Your task to perform on an android device: Show me popular videos on Youtube Image 0: 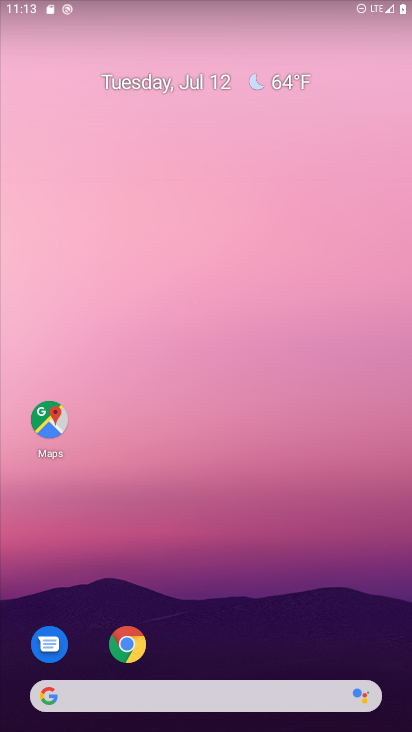
Step 0: drag from (221, 655) to (250, 76)
Your task to perform on an android device: Show me popular videos on Youtube Image 1: 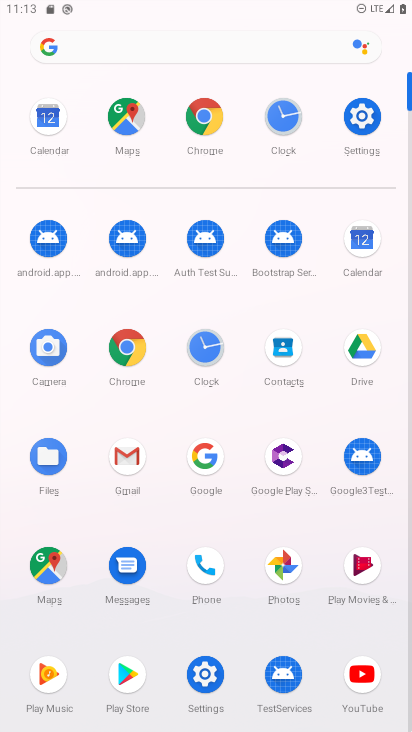
Step 1: click (361, 696)
Your task to perform on an android device: Show me popular videos on Youtube Image 2: 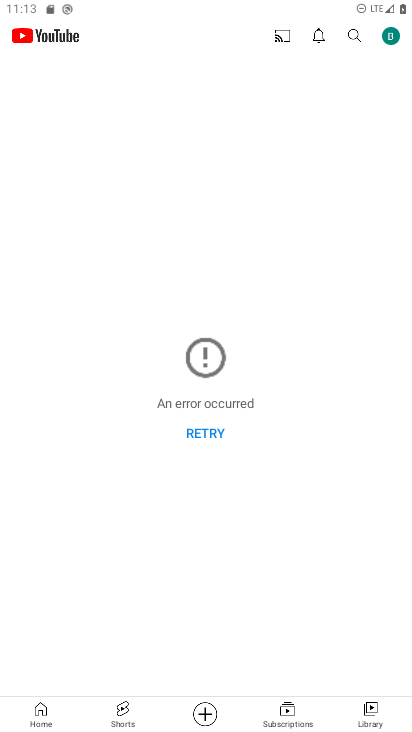
Step 2: click (212, 427)
Your task to perform on an android device: Show me popular videos on Youtube Image 3: 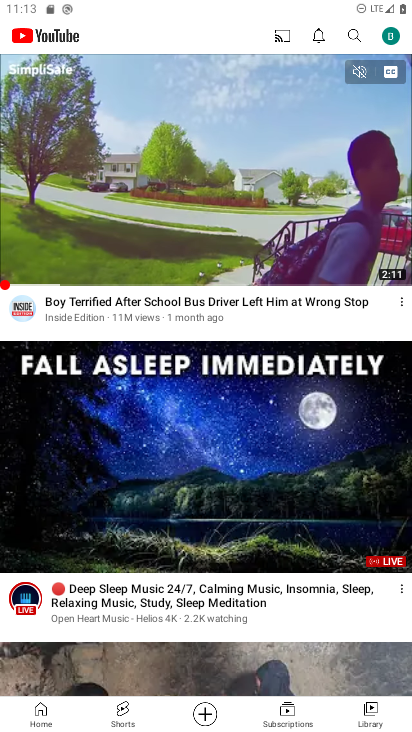
Step 3: click (391, 39)
Your task to perform on an android device: Show me popular videos on Youtube Image 4: 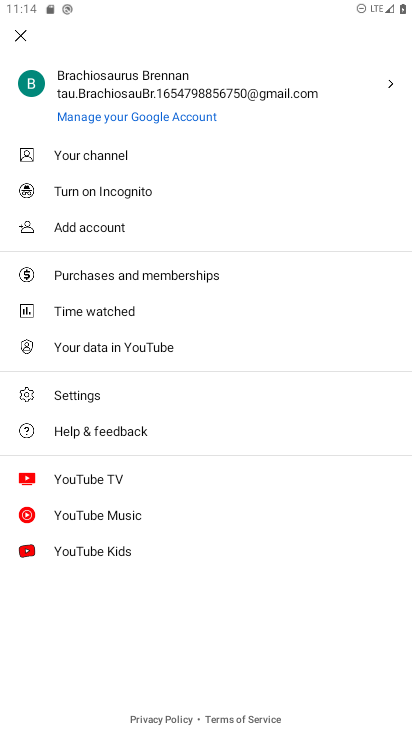
Step 4: click (19, 42)
Your task to perform on an android device: Show me popular videos on Youtube Image 5: 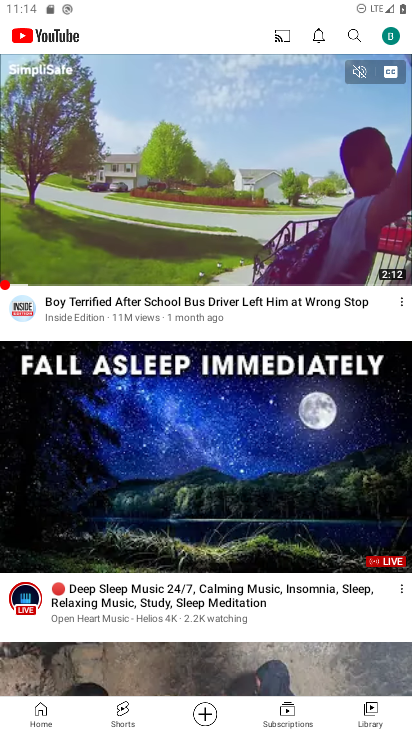
Step 5: click (47, 716)
Your task to perform on an android device: Show me popular videos on Youtube Image 6: 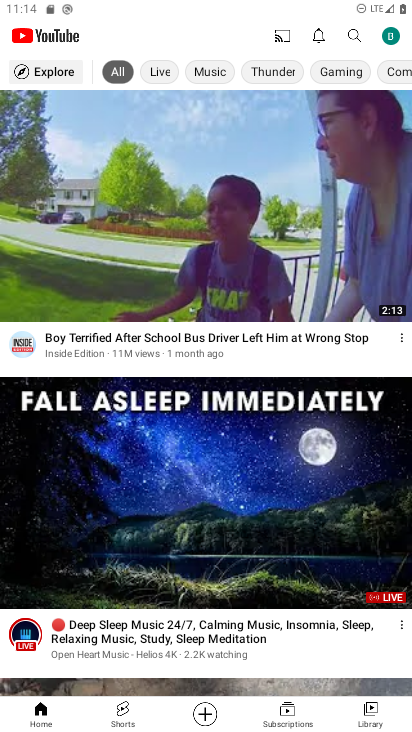
Step 6: task complete